Your task to perform on an android device: Show the shopping cart on costco. Add macbook pro 15 inch to the cart on costco Image 0: 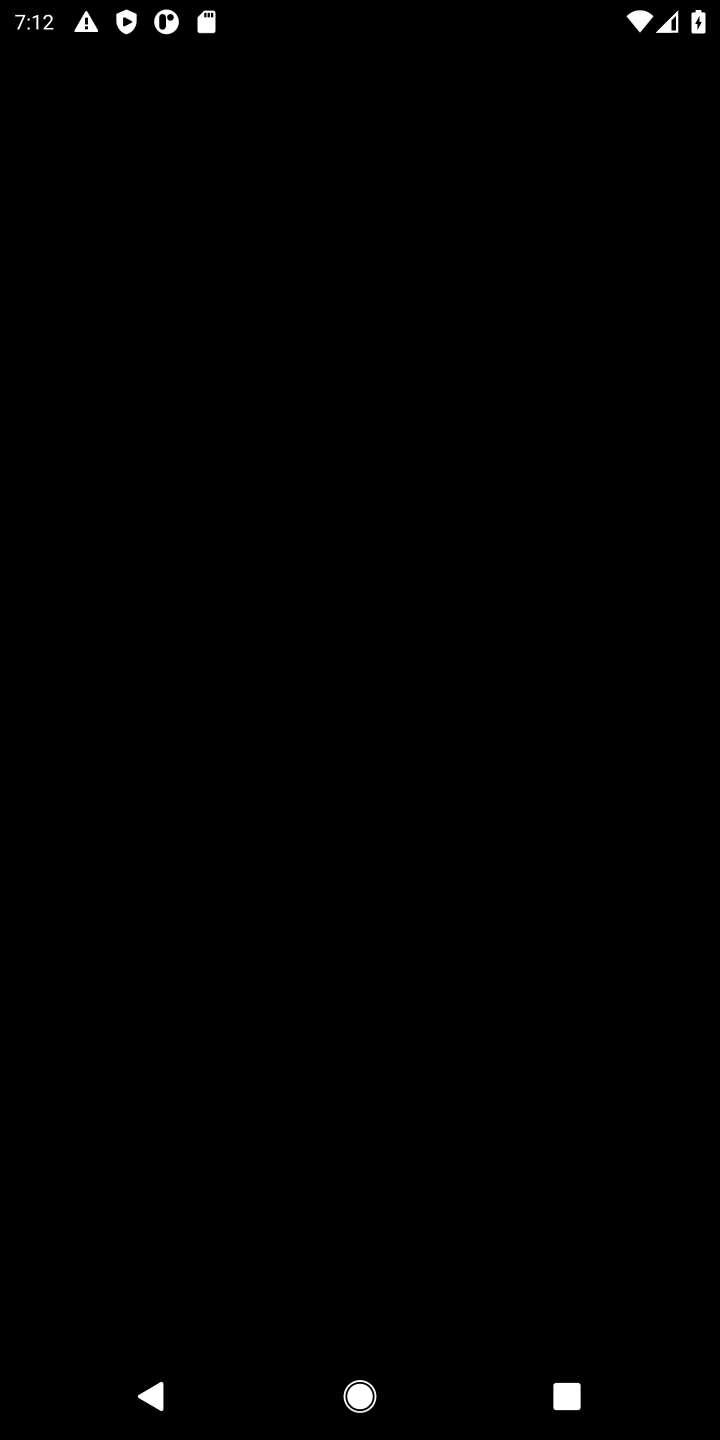
Step 0: press home button
Your task to perform on an android device: Show the shopping cart on costco. Add macbook pro 15 inch to the cart on costco Image 1: 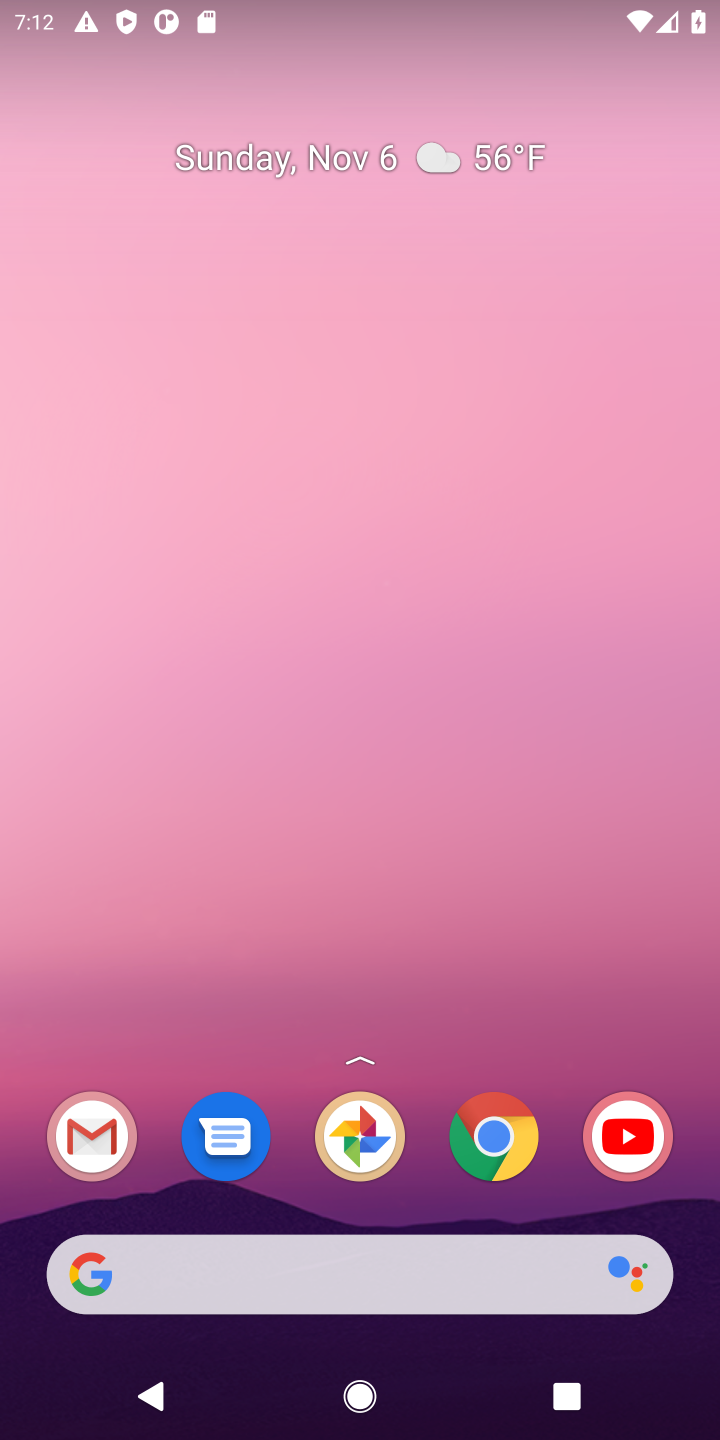
Step 1: click (366, 1256)
Your task to perform on an android device: Show the shopping cart on costco. Add macbook pro 15 inch to the cart on costco Image 2: 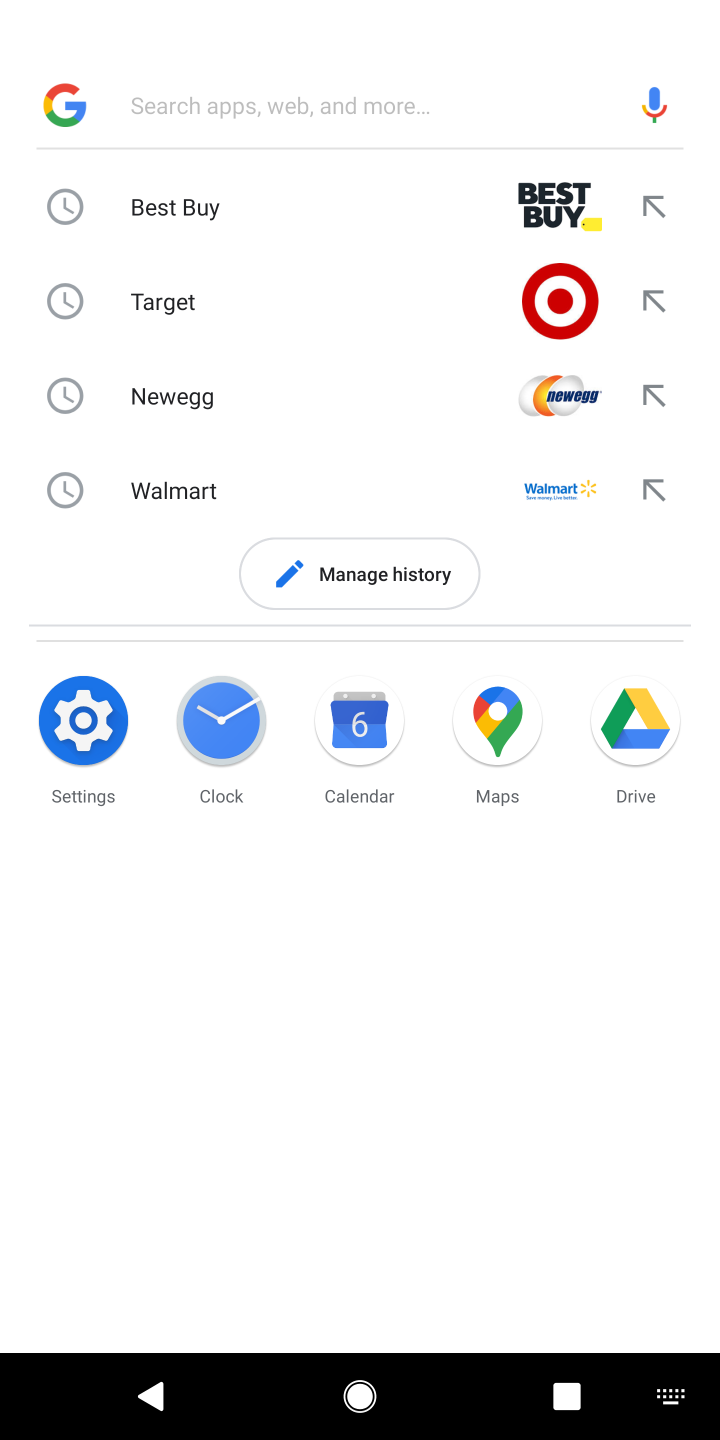
Step 2: type "costco"
Your task to perform on an android device: Show the shopping cart on costco. Add macbook pro 15 inch to the cart on costco Image 3: 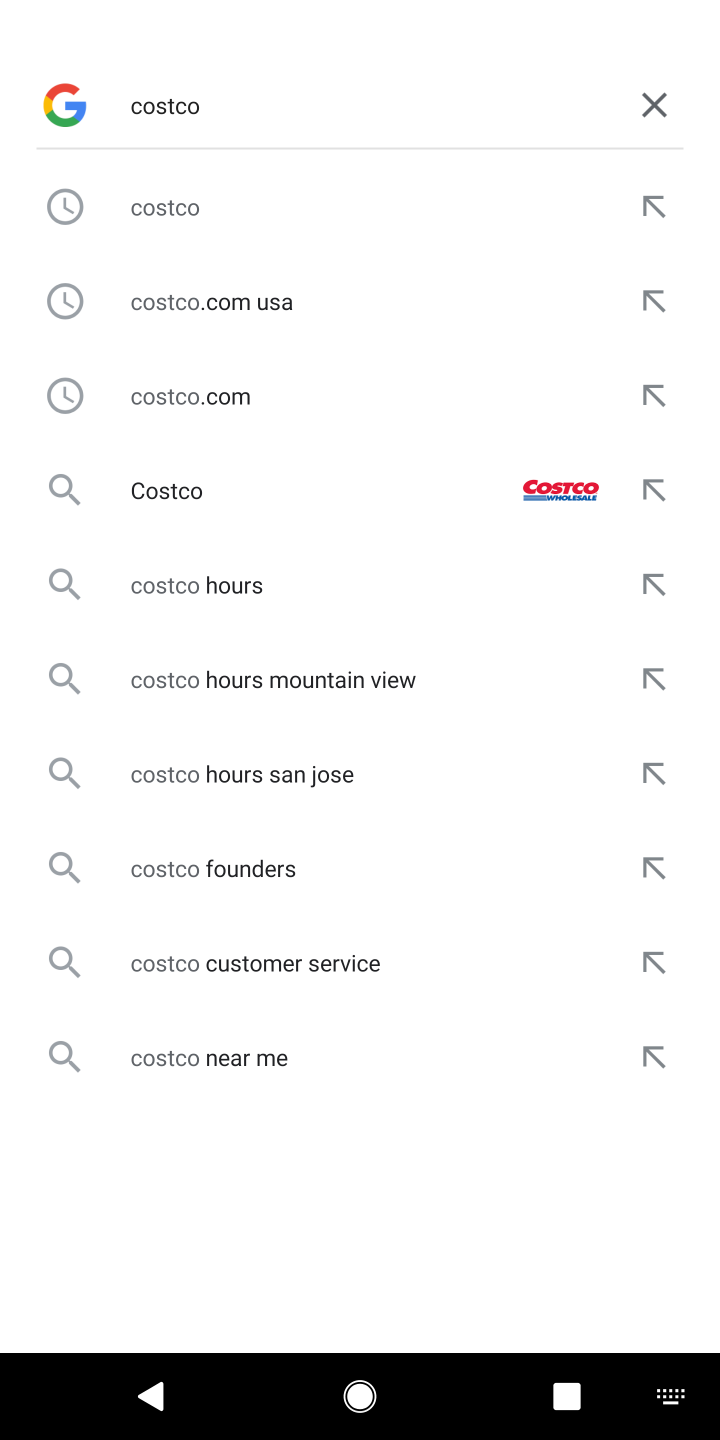
Step 3: click (385, 218)
Your task to perform on an android device: Show the shopping cart on costco. Add macbook pro 15 inch to the cart on costco Image 4: 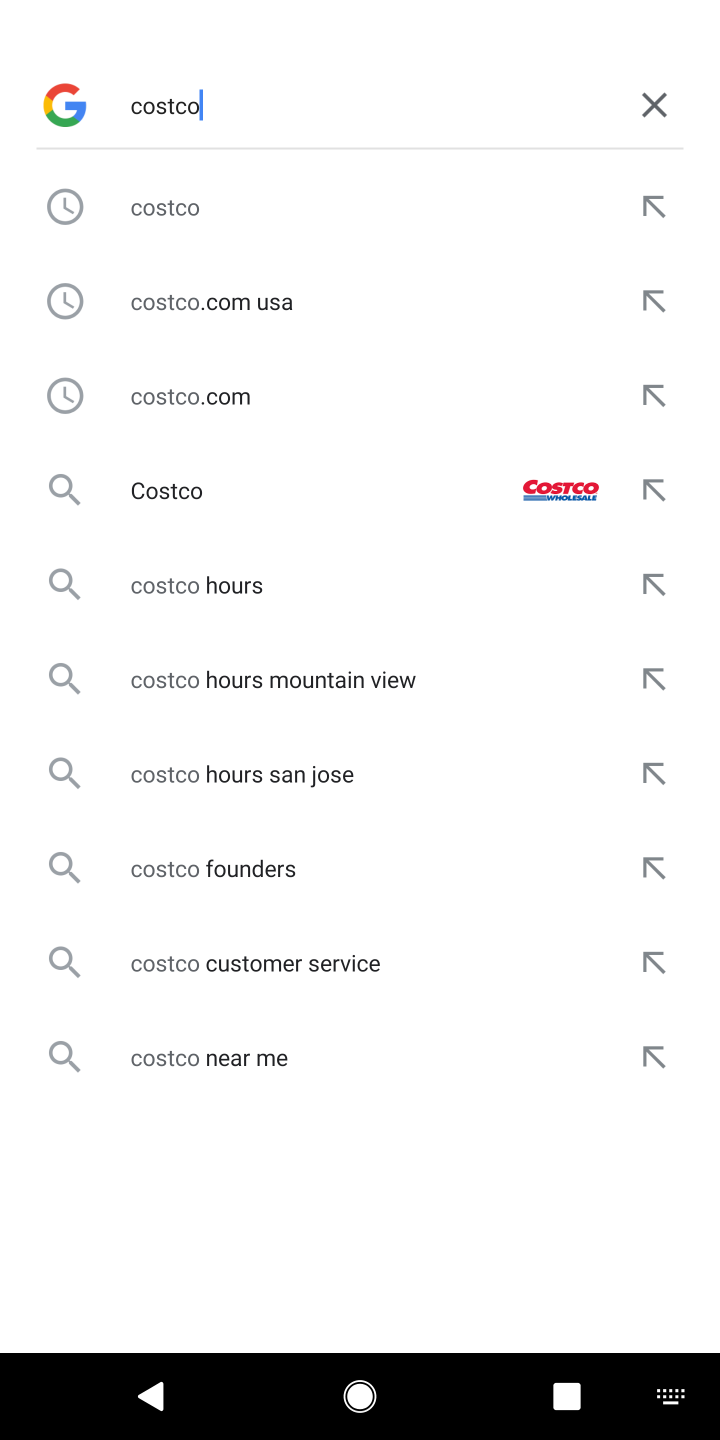
Step 4: click (385, 218)
Your task to perform on an android device: Show the shopping cart on costco. Add macbook pro 15 inch to the cart on costco Image 5: 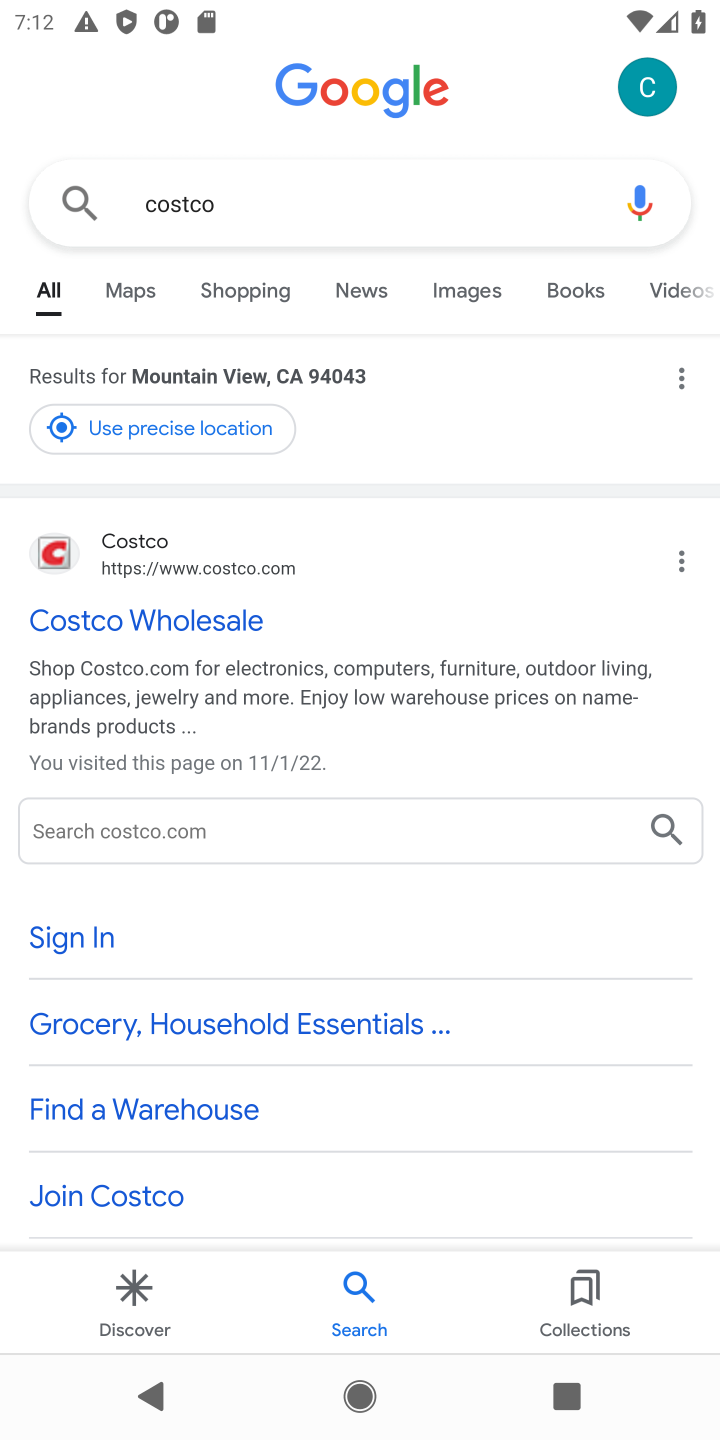
Step 5: click (204, 646)
Your task to perform on an android device: Show the shopping cart on costco. Add macbook pro 15 inch to the cart on costco Image 6: 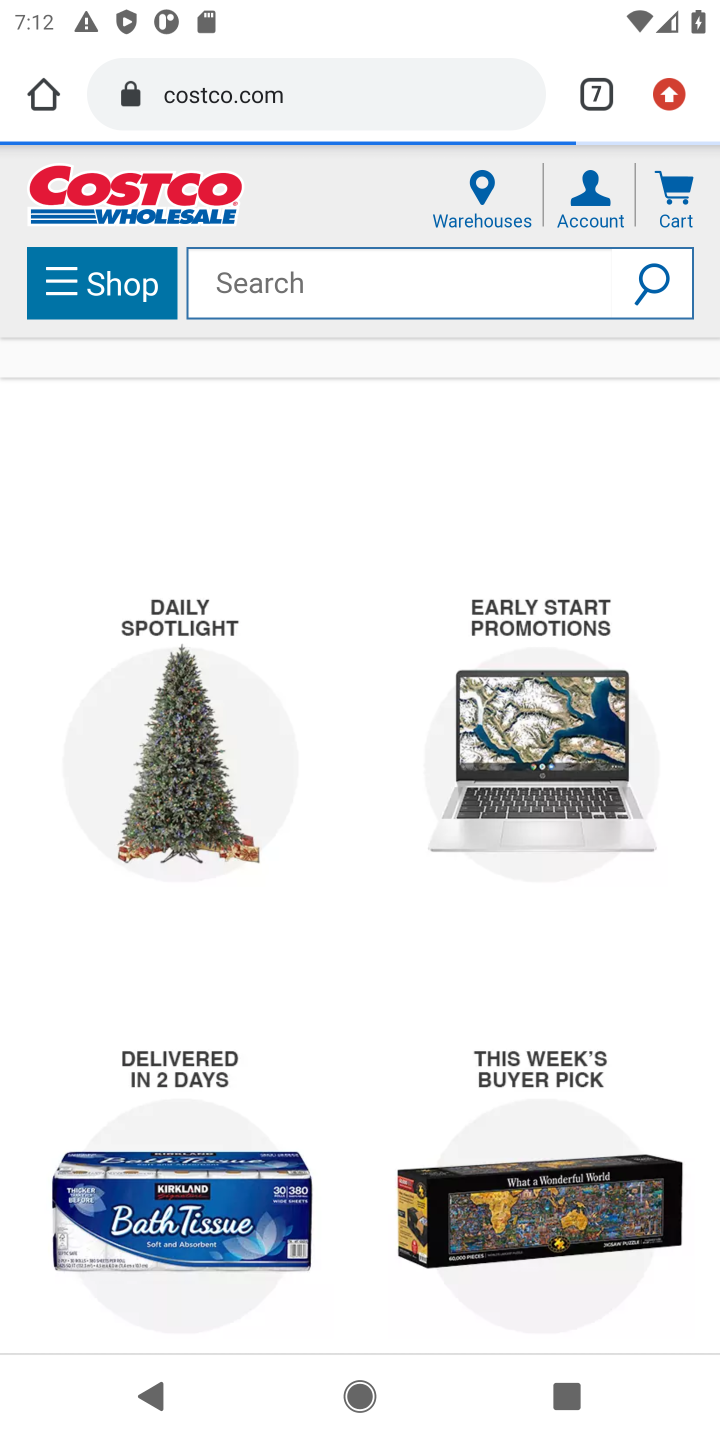
Step 6: click (321, 269)
Your task to perform on an android device: Show the shopping cart on costco. Add macbook pro 15 inch to the cart on costco Image 7: 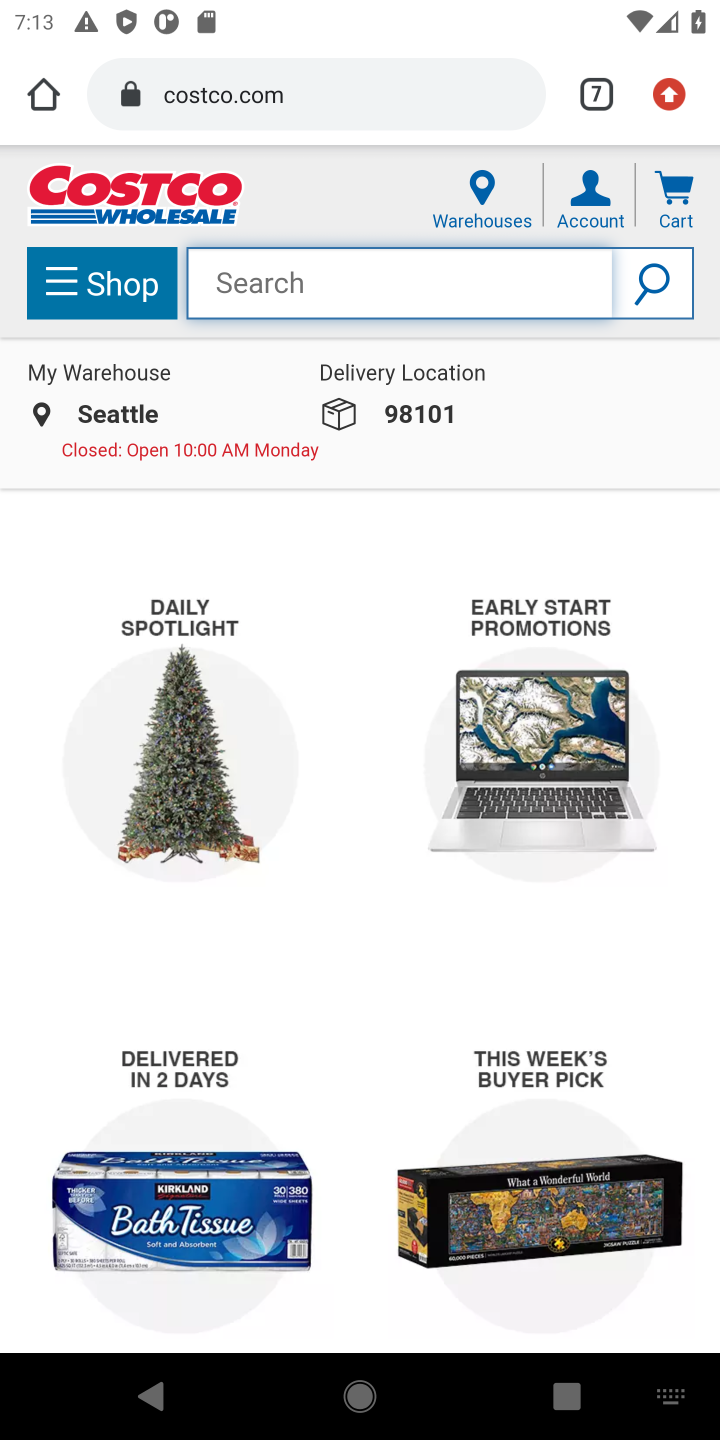
Step 7: type "macbook pro 15"
Your task to perform on an android device: Show the shopping cart on costco. Add macbook pro 15 inch to the cart on costco Image 8: 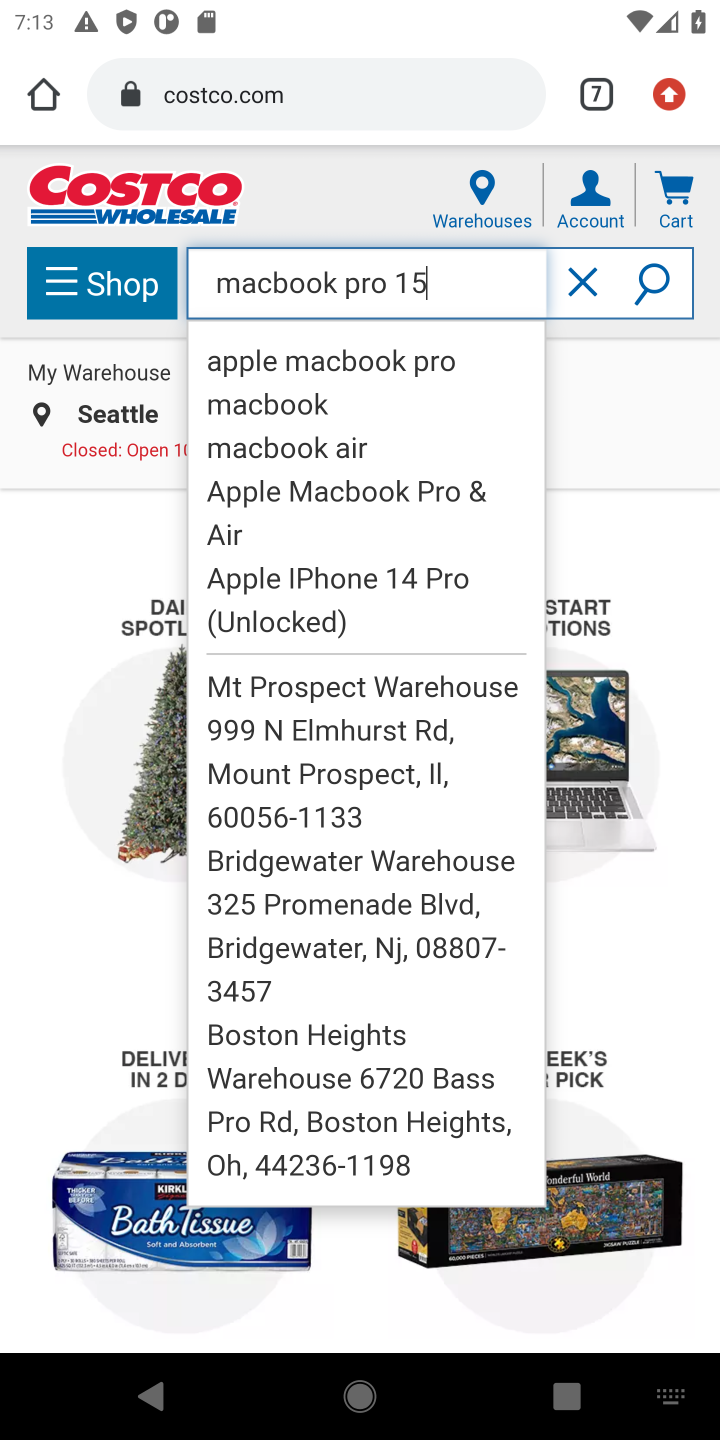
Step 8: click (411, 358)
Your task to perform on an android device: Show the shopping cart on costco. Add macbook pro 15 inch to the cart on costco Image 9: 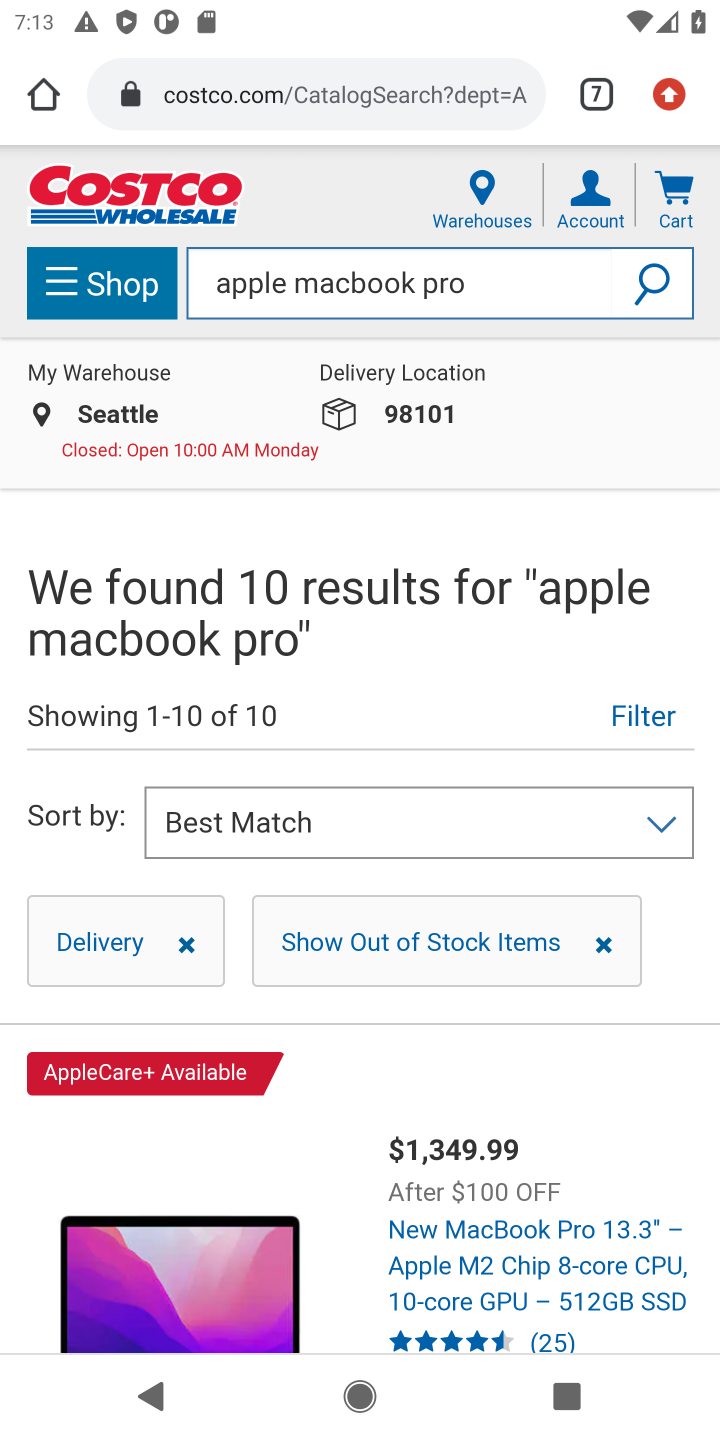
Step 9: drag from (626, 1136) to (541, 385)
Your task to perform on an android device: Show the shopping cart on costco. Add macbook pro 15 inch to the cart on costco Image 10: 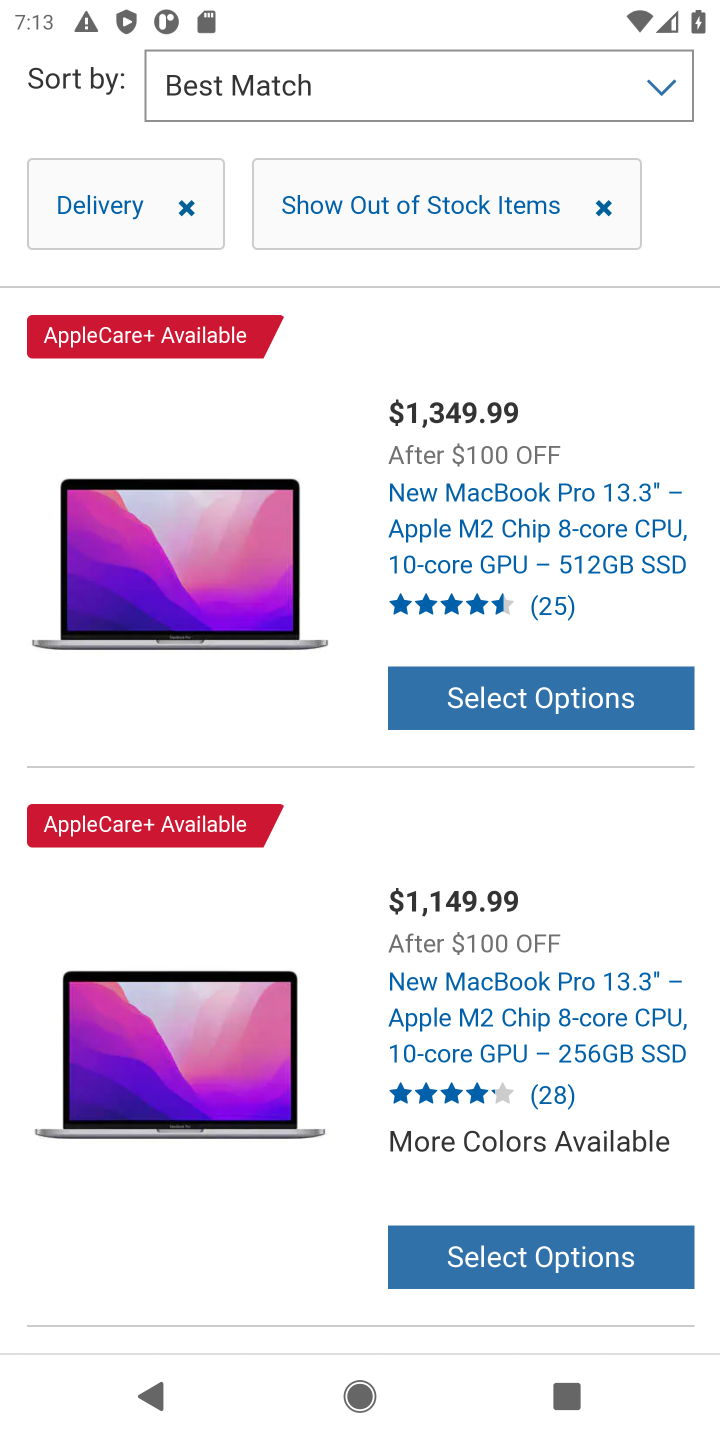
Step 10: click (497, 725)
Your task to perform on an android device: Show the shopping cart on costco. Add macbook pro 15 inch to the cart on costco Image 11: 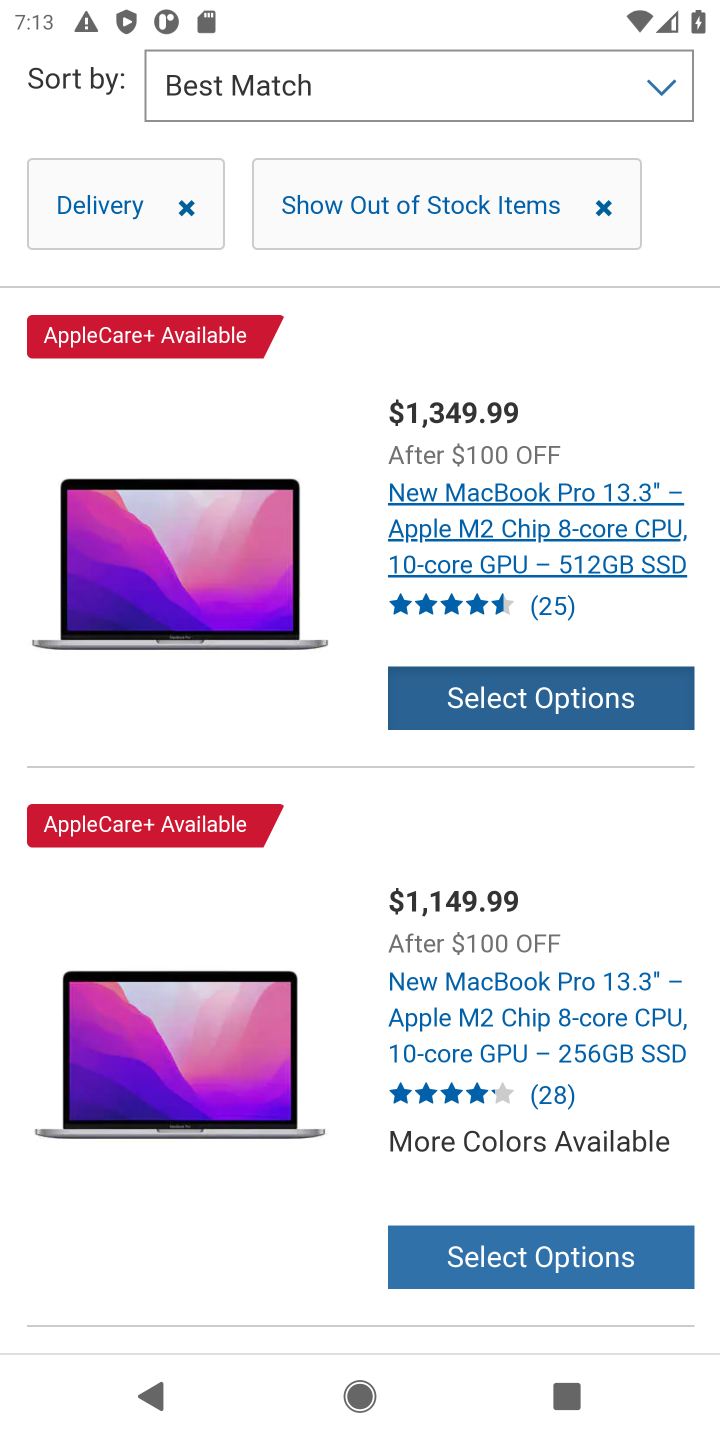
Step 11: task complete